Your task to perform on an android device: Open Chrome and go to the settings page Image 0: 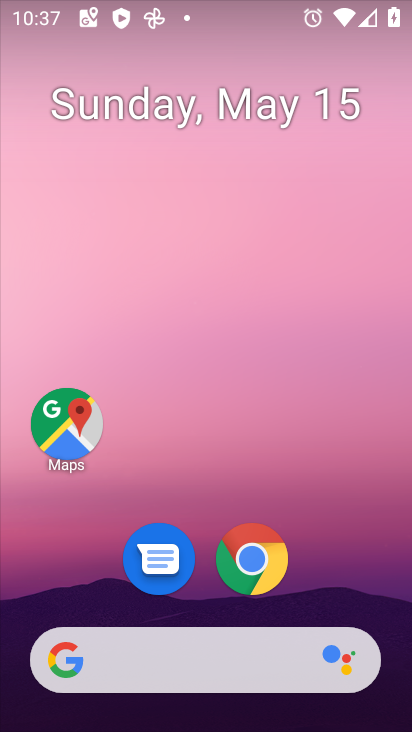
Step 0: click (247, 585)
Your task to perform on an android device: Open Chrome and go to the settings page Image 1: 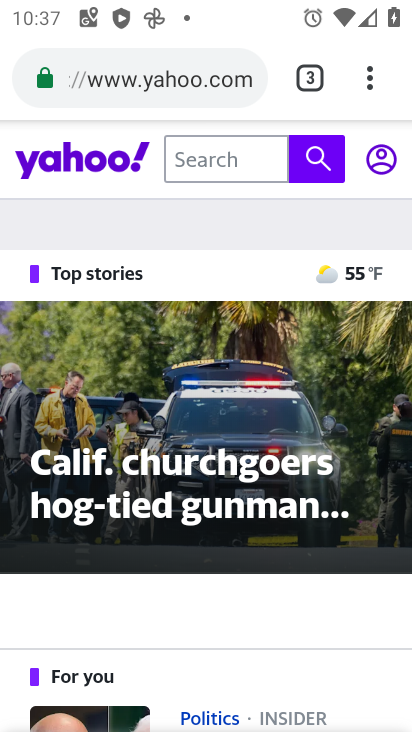
Step 1: click (368, 64)
Your task to perform on an android device: Open Chrome and go to the settings page Image 2: 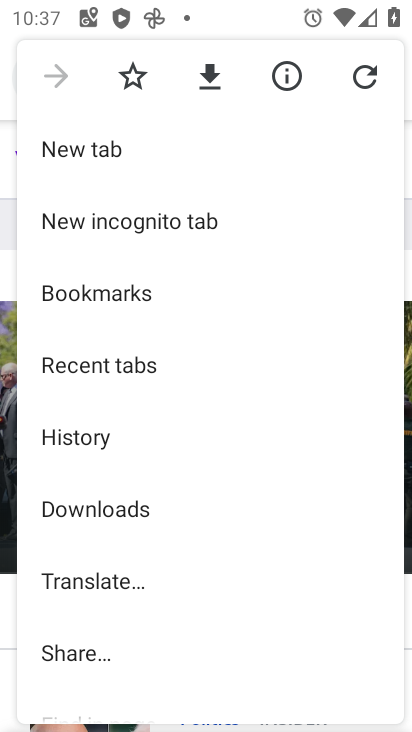
Step 2: drag from (145, 622) to (198, 335)
Your task to perform on an android device: Open Chrome and go to the settings page Image 3: 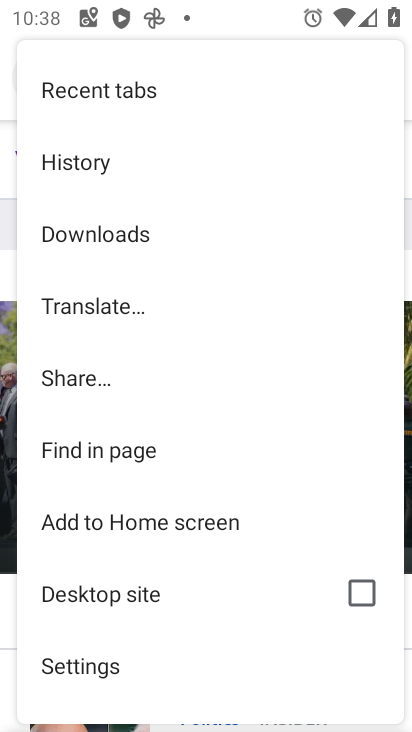
Step 3: click (135, 656)
Your task to perform on an android device: Open Chrome and go to the settings page Image 4: 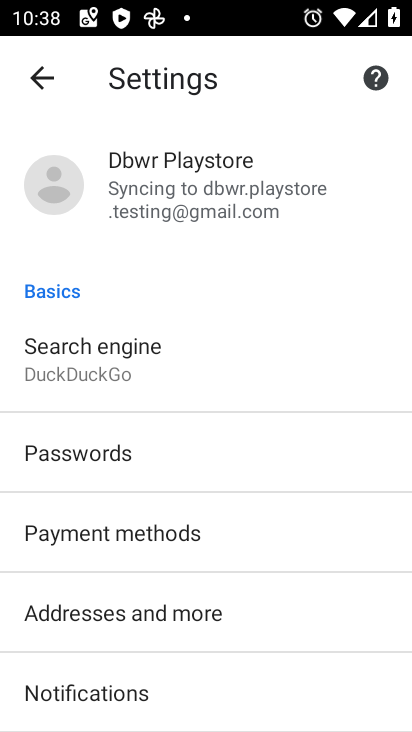
Step 4: task complete